Your task to perform on an android device: set default search engine in the chrome app Image 0: 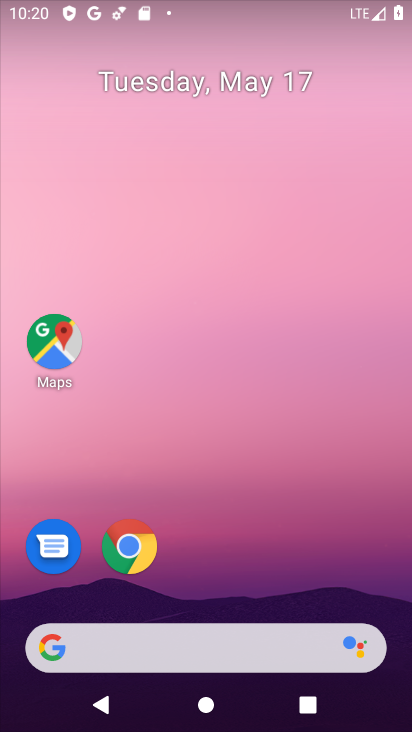
Step 0: drag from (216, 609) to (278, 108)
Your task to perform on an android device: set default search engine in the chrome app Image 1: 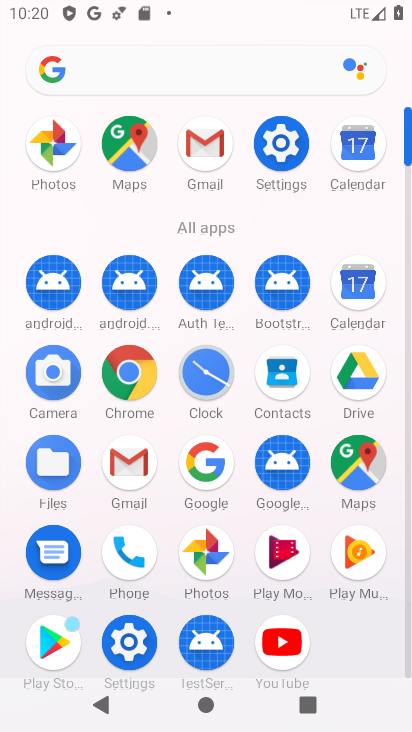
Step 1: click (127, 358)
Your task to perform on an android device: set default search engine in the chrome app Image 2: 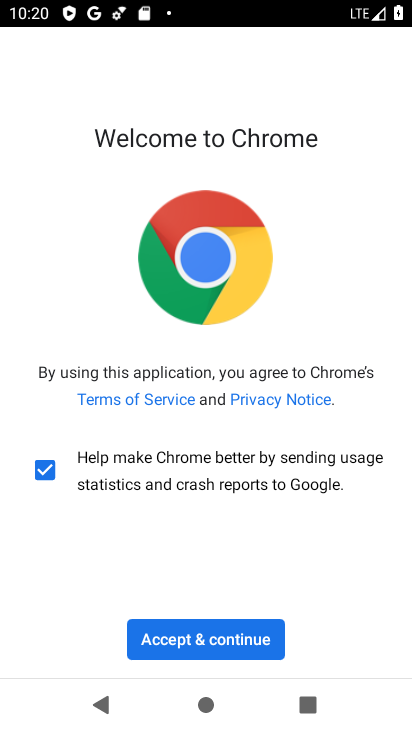
Step 2: click (217, 639)
Your task to perform on an android device: set default search engine in the chrome app Image 3: 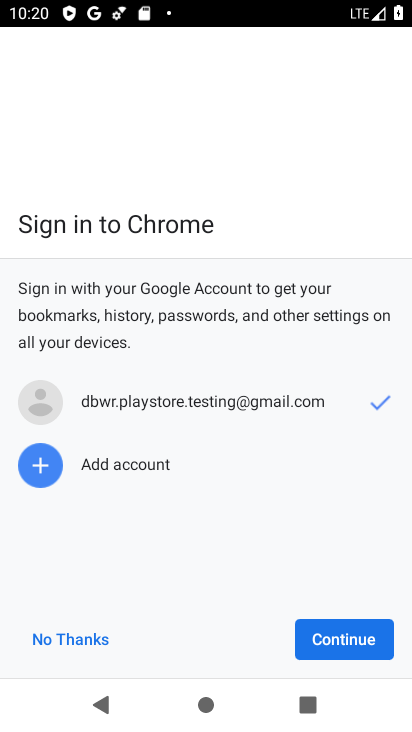
Step 3: click (375, 634)
Your task to perform on an android device: set default search engine in the chrome app Image 4: 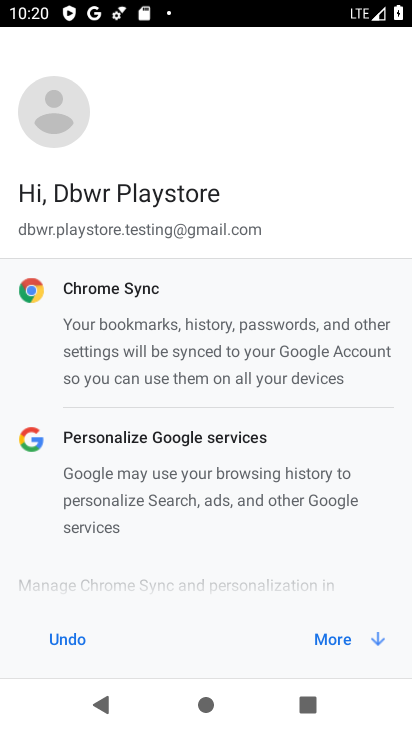
Step 4: click (338, 642)
Your task to perform on an android device: set default search engine in the chrome app Image 5: 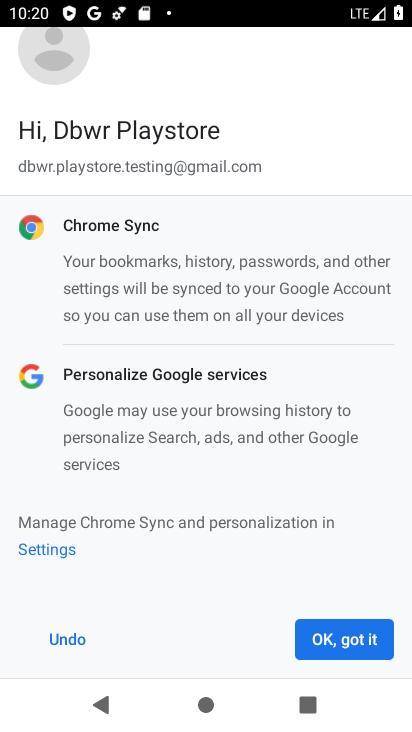
Step 5: click (338, 642)
Your task to perform on an android device: set default search engine in the chrome app Image 6: 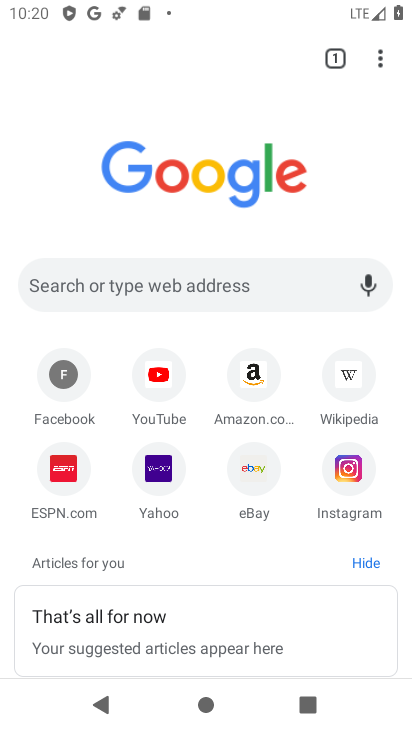
Step 6: click (378, 60)
Your task to perform on an android device: set default search engine in the chrome app Image 7: 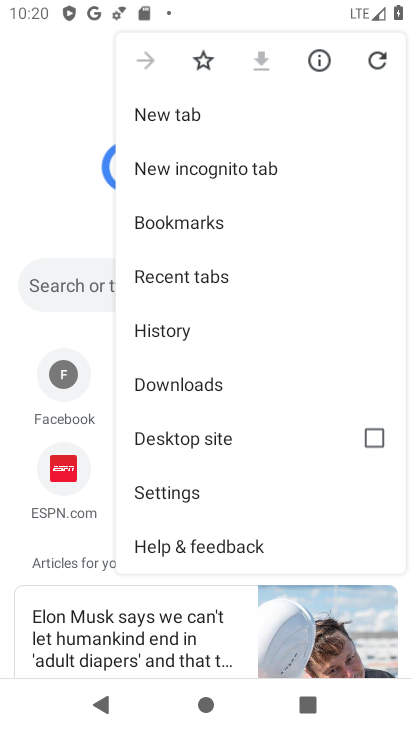
Step 7: click (185, 506)
Your task to perform on an android device: set default search engine in the chrome app Image 8: 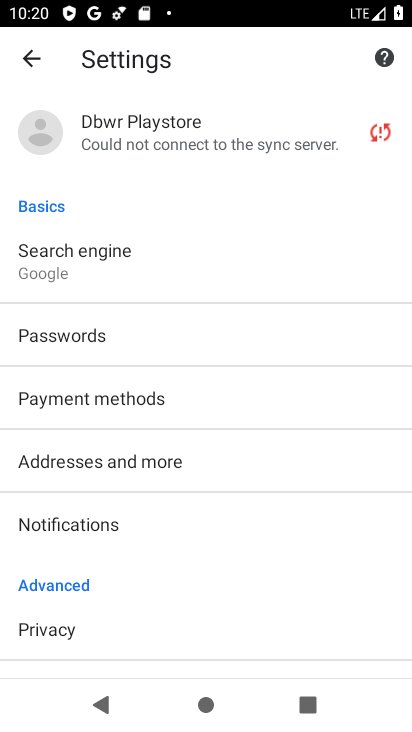
Step 8: click (88, 268)
Your task to perform on an android device: set default search engine in the chrome app Image 9: 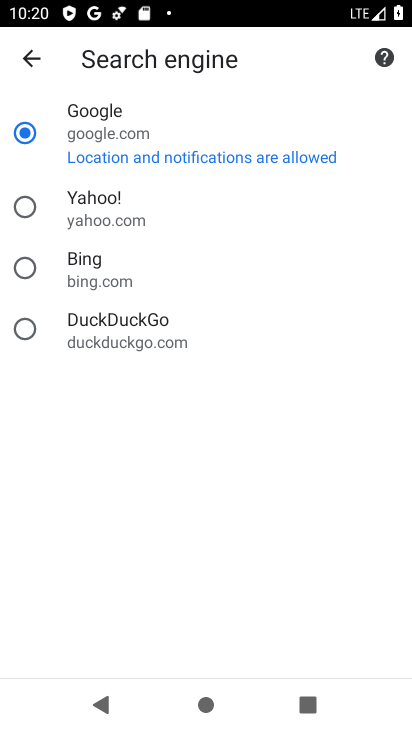
Step 9: click (151, 160)
Your task to perform on an android device: set default search engine in the chrome app Image 10: 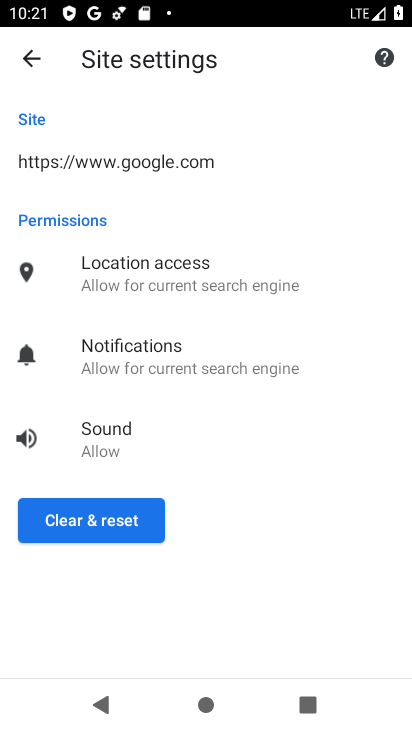
Step 10: click (87, 509)
Your task to perform on an android device: set default search engine in the chrome app Image 11: 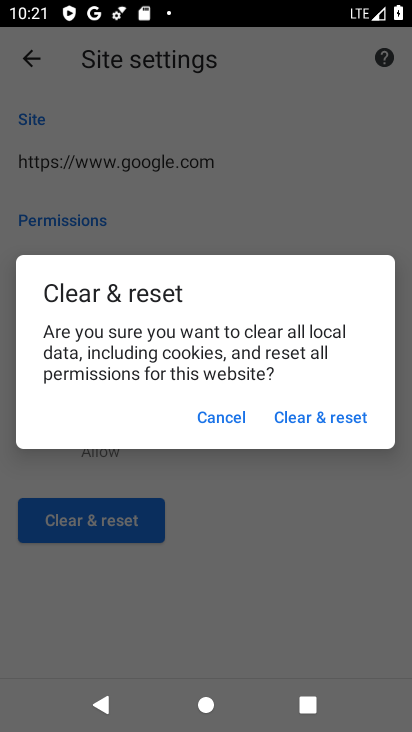
Step 11: click (345, 415)
Your task to perform on an android device: set default search engine in the chrome app Image 12: 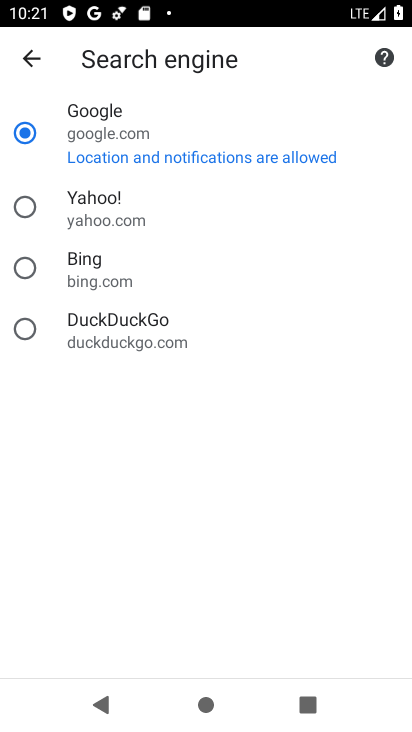
Step 12: task complete